Your task to perform on an android device: change timer sound Image 0: 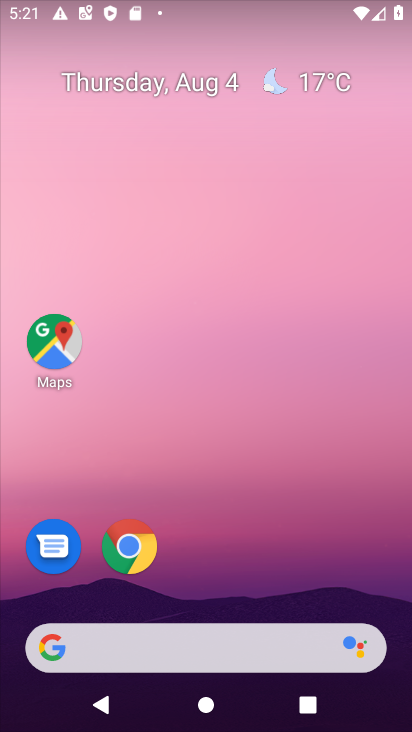
Step 0: drag from (193, 253) to (234, 87)
Your task to perform on an android device: change timer sound Image 1: 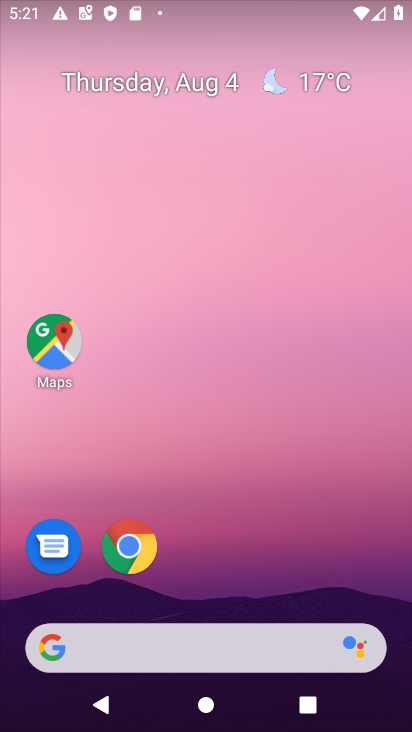
Step 1: drag from (200, 544) to (214, 171)
Your task to perform on an android device: change timer sound Image 2: 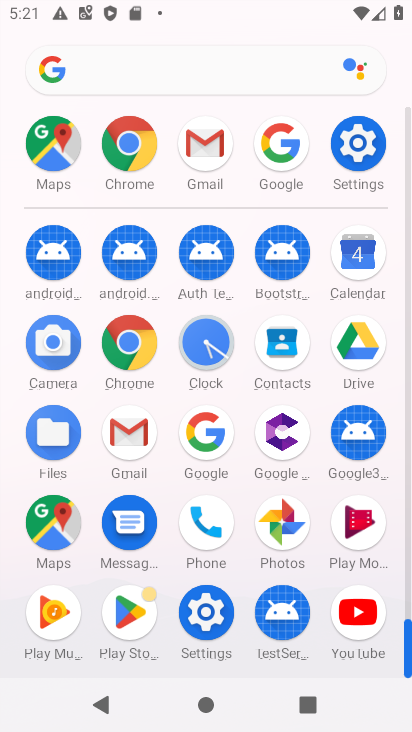
Step 2: click (208, 365)
Your task to perform on an android device: change timer sound Image 3: 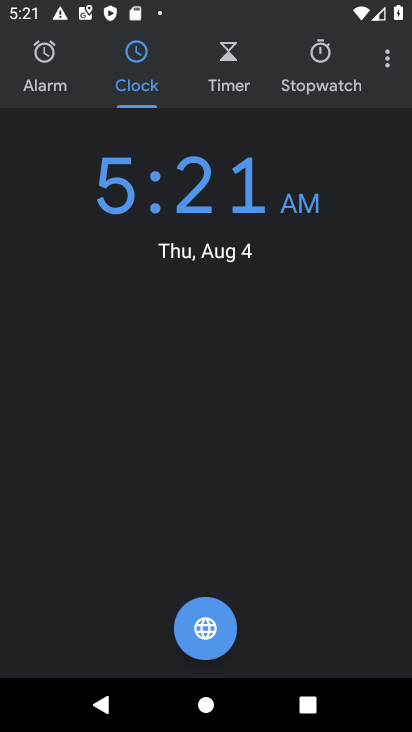
Step 3: click (394, 66)
Your task to perform on an android device: change timer sound Image 4: 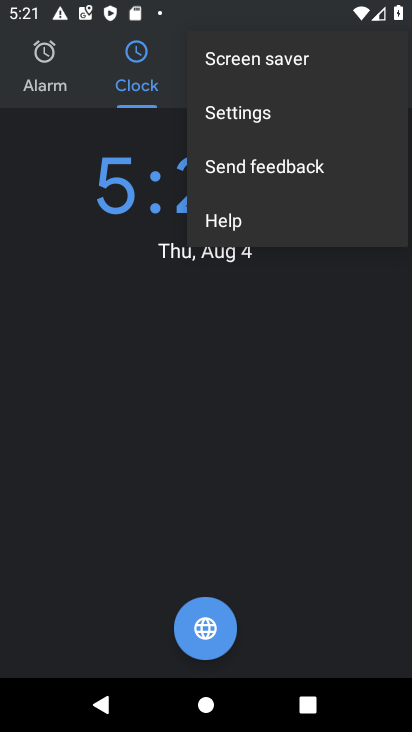
Step 4: click (269, 123)
Your task to perform on an android device: change timer sound Image 5: 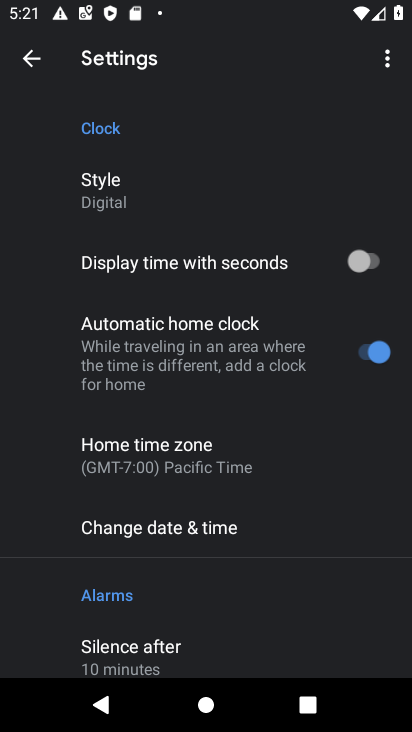
Step 5: drag from (157, 522) to (193, 256)
Your task to perform on an android device: change timer sound Image 6: 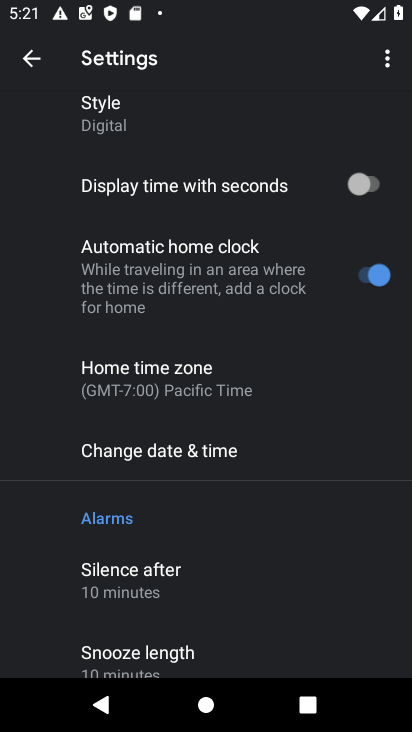
Step 6: drag from (172, 580) to (226, 263)
Your task to perform on an android device: change timer sound Image 7: 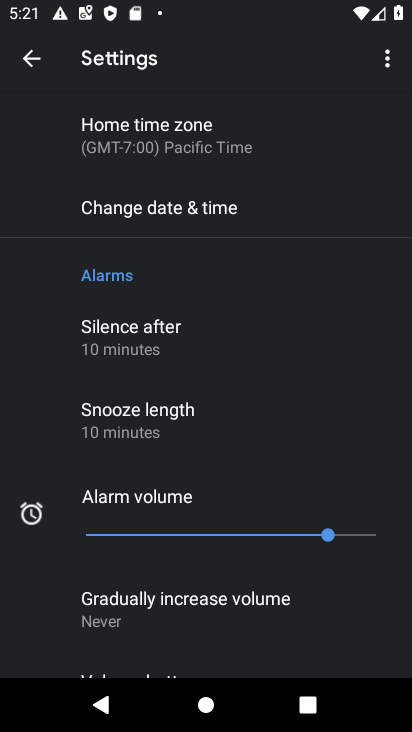
Step 7: drag from (137, 545) to (174, 256)
Your task to perform on an android device: change timer sound Image 8: 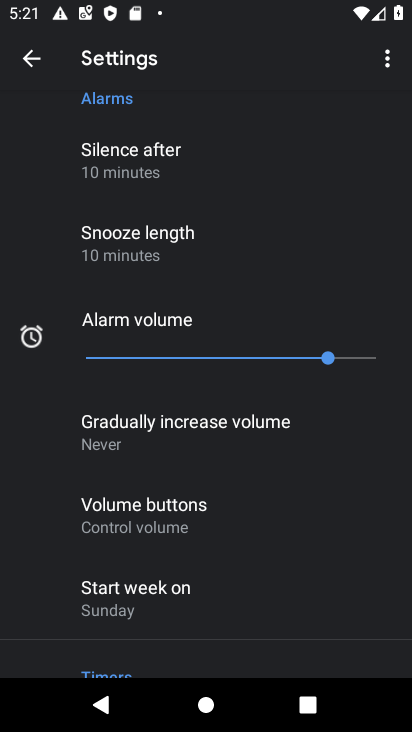
Step 8: drag from (143, 613) to (161, 248)
Your task to perform on an android device: change timer sound Image 9: 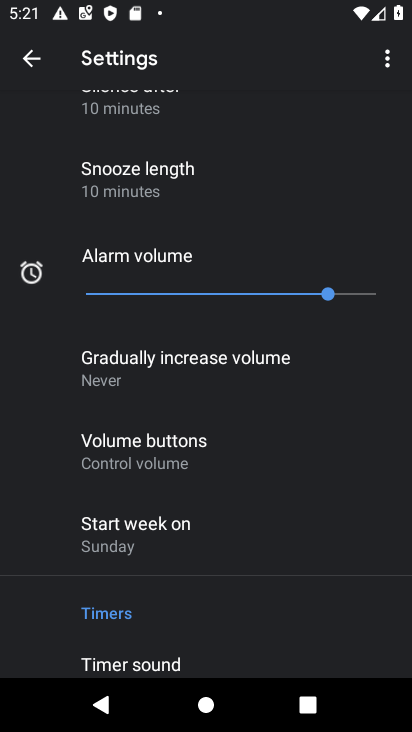
Step 9: click (121, 663)
Your task to perform on an android device: change timer sound Image 10: 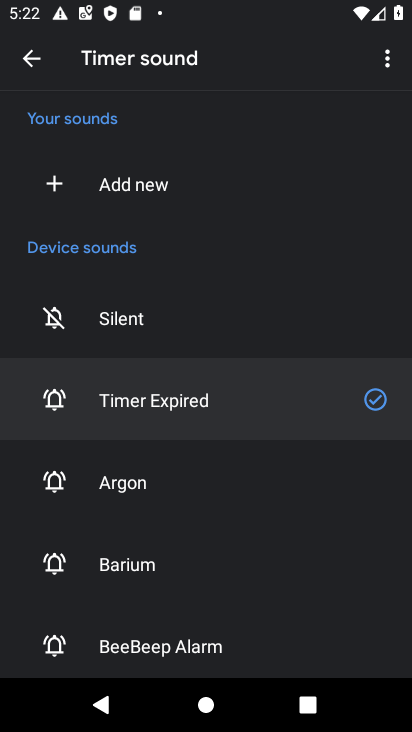
Step 10: click (133, 480)
Your task to perform on an android device: change timer sound Image 11: 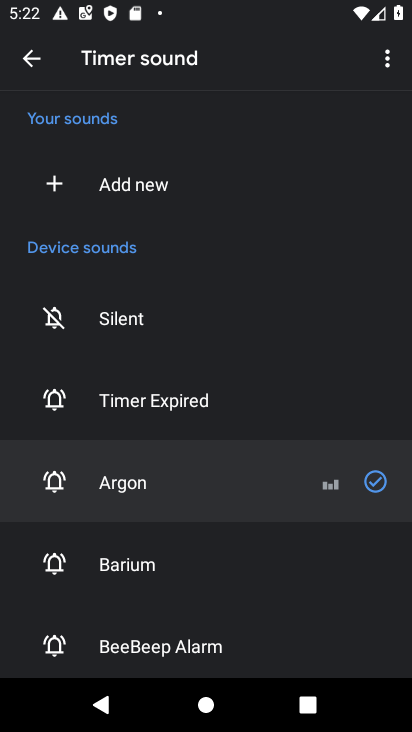
Step 11: task complete